Your task to perform on an android device: turn on sleep mode Image 0: 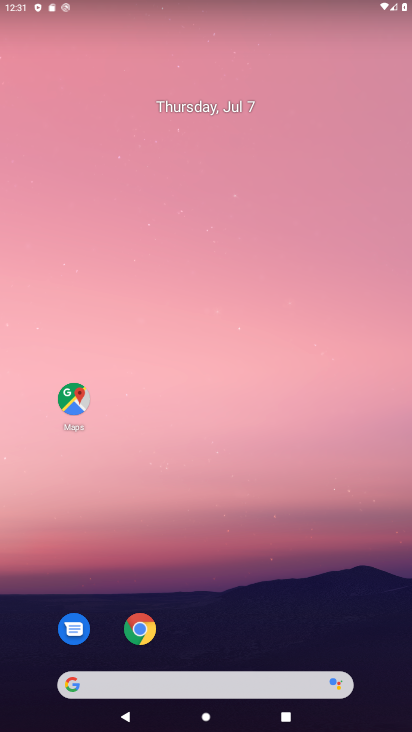
Step 0: drag from (264, 600) to (299, 137)
Your task to perform on an android device: turn on sleep mode Image 1: 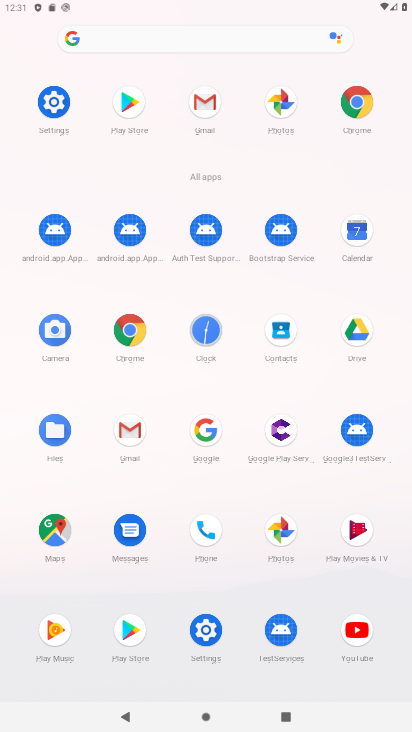
Step 1: click (210, 629)
Your task to perform on an android device: turn on sleep mode Image 2: 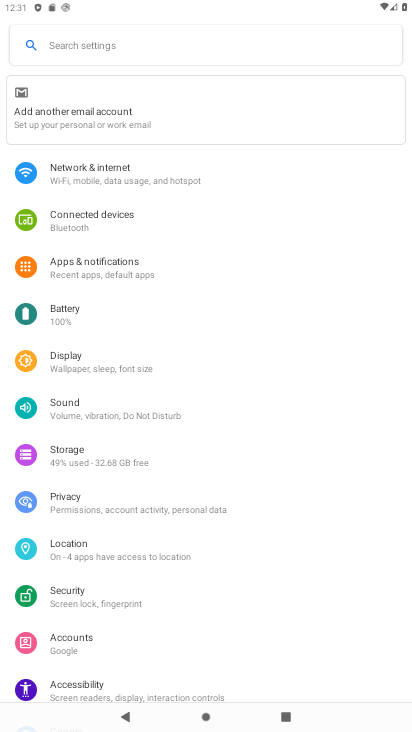
Step 2: click (118, 366)
Your task to perform on an android device: turn on sleep mode Image 3: 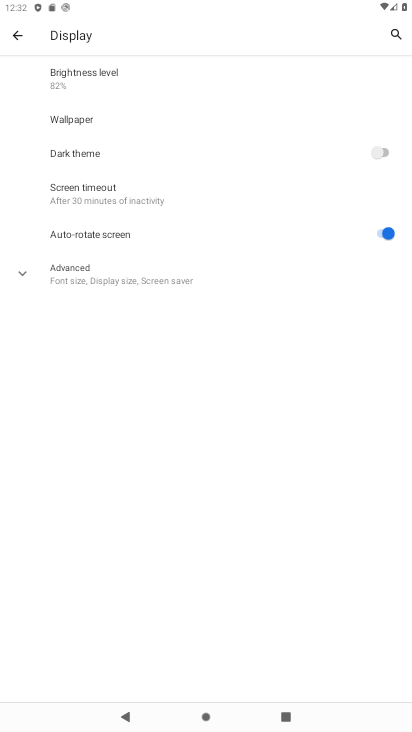
Step 3: click (102, 274)
Your task to perform on an android device: turn on sleep mode Image 4: 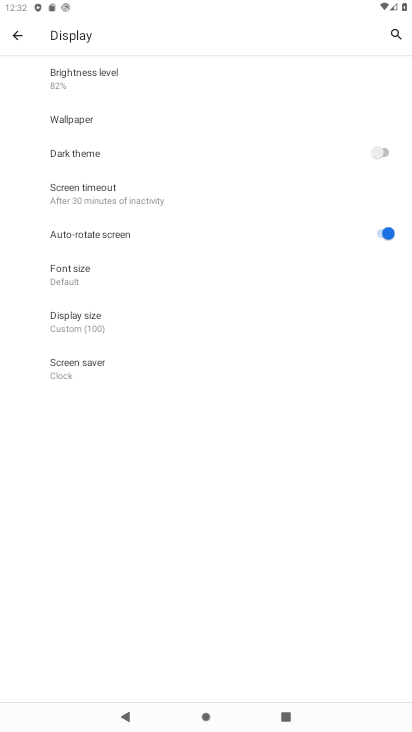
Step 4: task complete